Your task to perform on an android device: Go to accessibility settings Image 0: 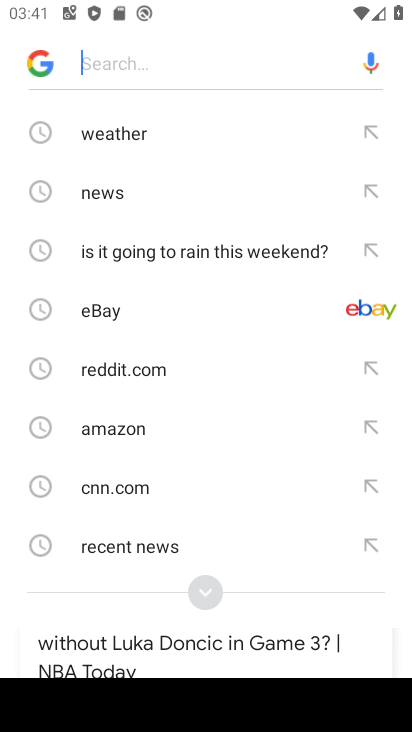
Step 0: press home button
Your task to perform on an android device: Go to accessibility settings Image 1: 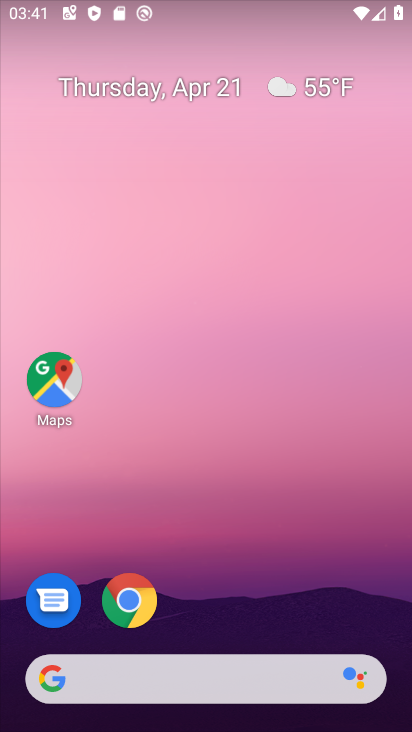
Step 1: drag from (213, 627) to (223, 99)
Your task to perform on an android device: Go to accessibility settings Image 2: 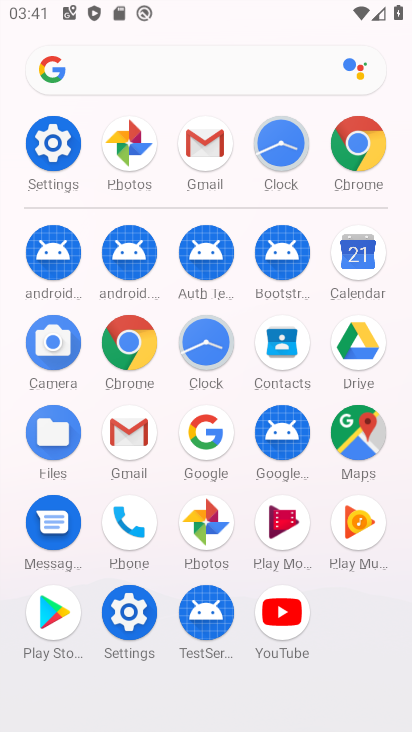
Step 2: click (34, 147)
Your task to perform on an android device: Go to accessibility settings Image 3: 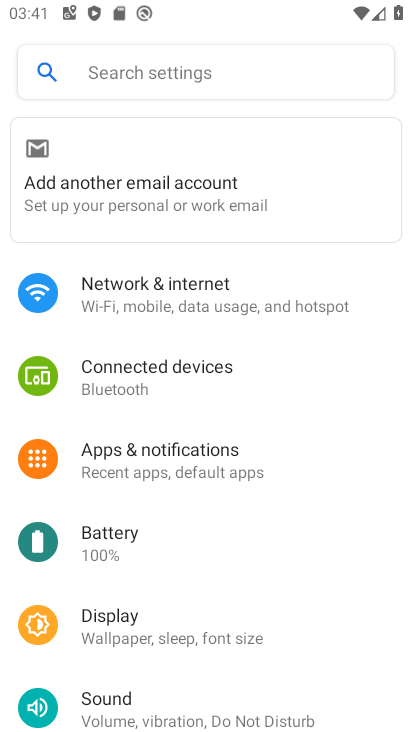
Step 3: drag from (187, 607) to (201, 495)
Your task to perform on an android device: Go to accessibility settings Image 4: 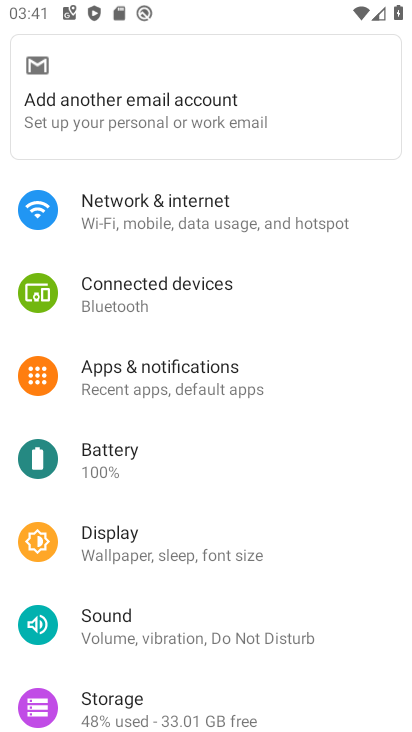
Step 4: drag from (228, 573) to (229, 482)
Your task to perform on an android device: Go to accessibility settings Image 5: 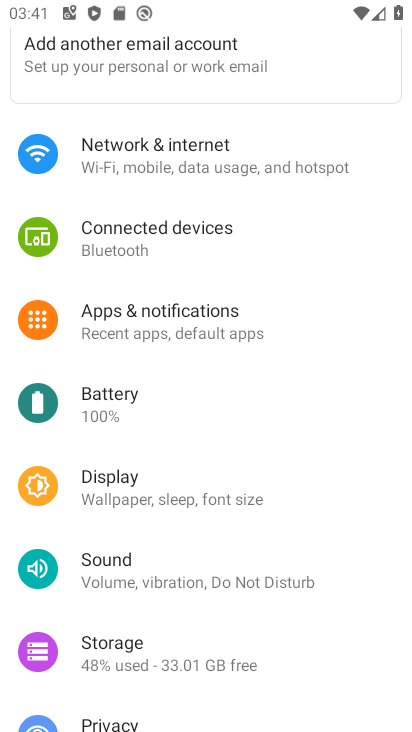
Step 5: drag from (207, 588) to (231, 417)
Your task to perform on an android device: Go to accessibility settings Image 6: 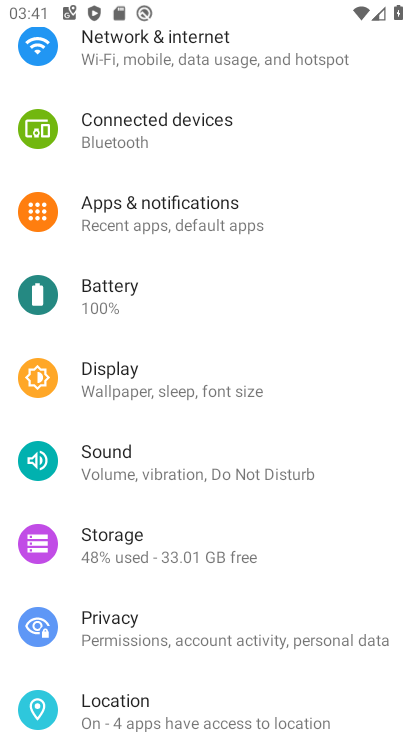
Step 6: drag from (242, 582) to (251, 435)
Your task to perform on an android device: Go to accessibility settings Image 7: 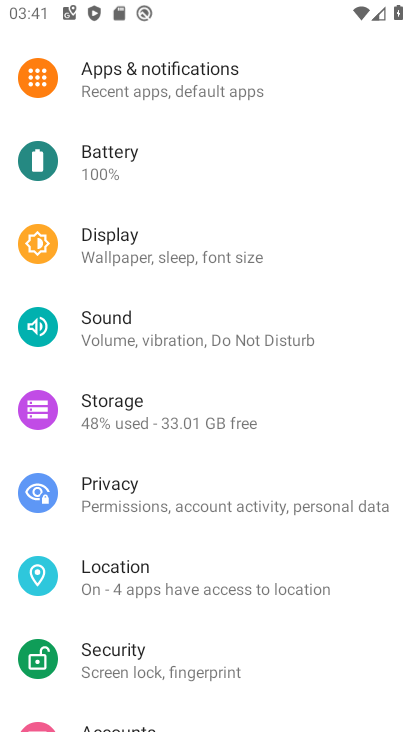
Step 7: drag from (246, 545) to (278, 396)
Your task to perform on an android device: Go to accessibility settings Image 8: 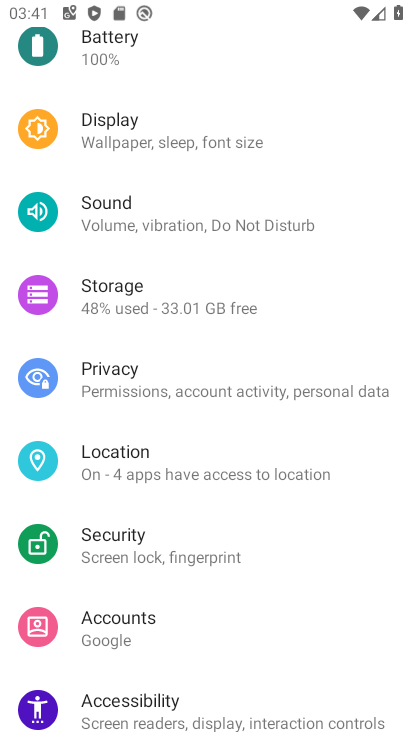
Step 8: drag from (273, 581) to (348, 323)
Your task to perform on an android device: Go to accessibility settings Image 9: 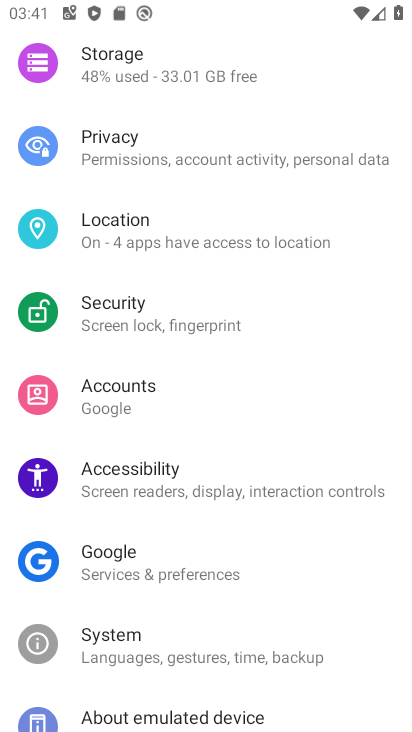
Step 9: click (246, 482)
Your task to perform on an android device: Go to accessibility settings Image 10: 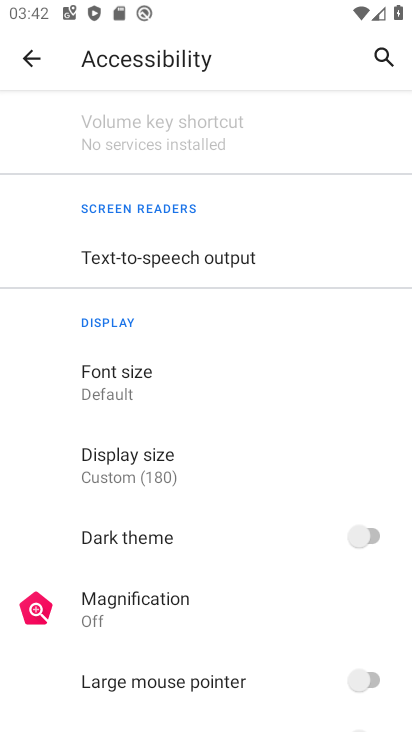
Step 10: task complete